Your task to perform on an android device: What is the news today? Image 0: 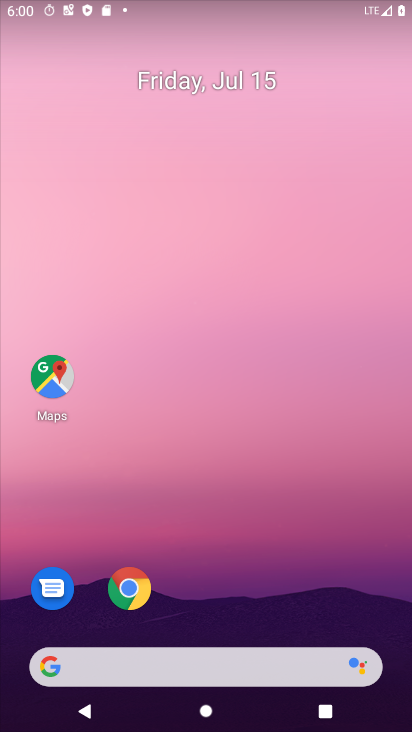
Step 0: click (217, 97)
Your task to perform on an android device: What is the news today? Image 1: 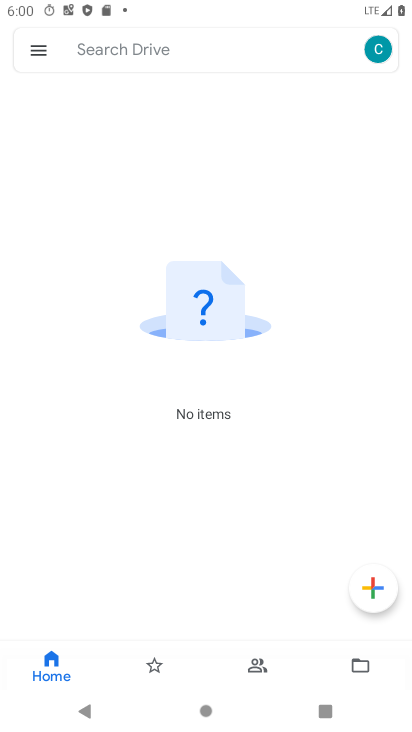
Step 1: press home button
Your task to perform on an android device: What is the news today? Image 2: 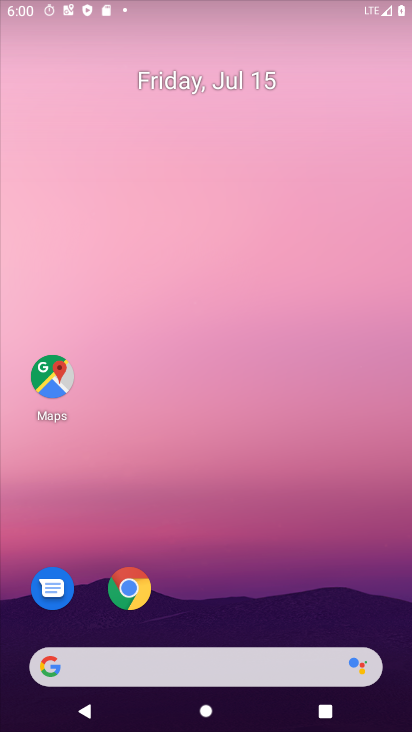
Step 2: drag from (278, 649) to (308, 55)
Your task to perform on an android device: What is the news today? Image 3: 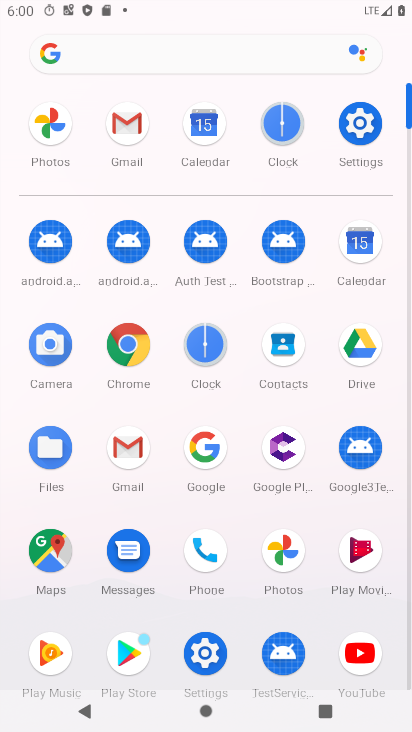
Step 3: click (363, 126)
Your task to perform on an android device: What is the news today? Image 4: 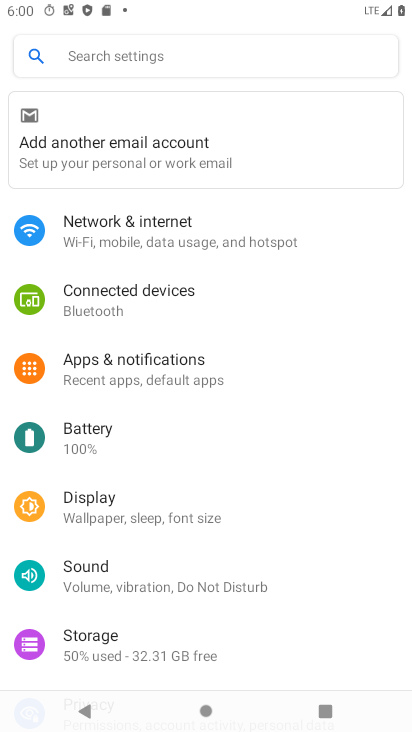
Step 4: press home button
Your task to perform on an android device: What is the news today? Image 5: 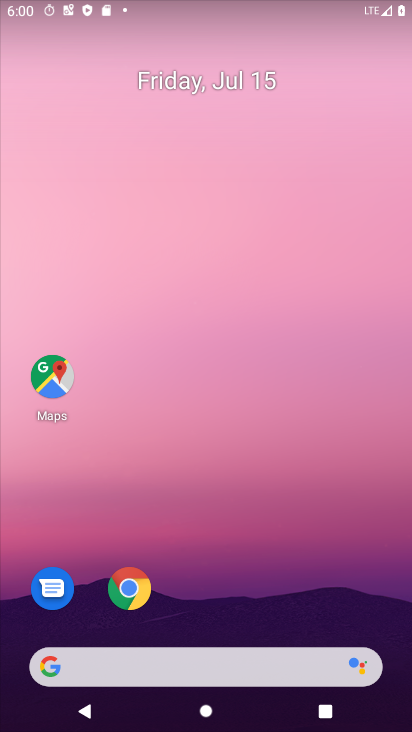
Step 5: drag from (240, 654) to (291, 44)
Your task to perform on an android device: What is the news today? Image 6: 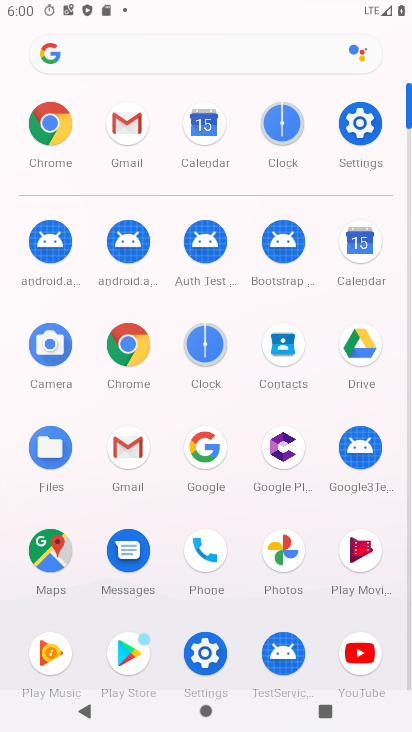
Step 6: click (143, 348)
Your task to perform on an android device: What is the news today? Image 7: 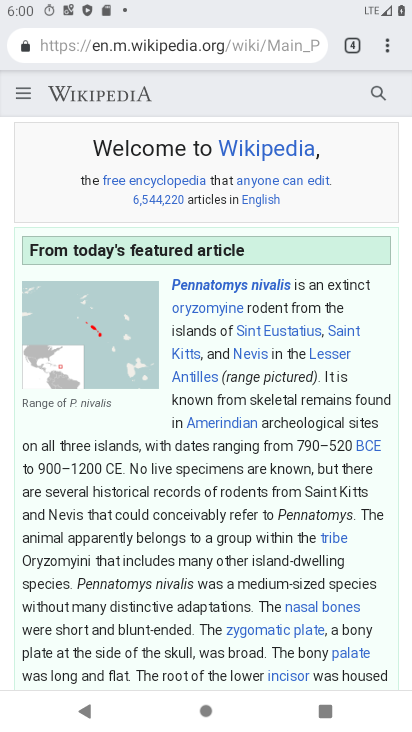
Step 7: click (253, 54)
Your task to perform on an android device: What is the news today? Image 8: 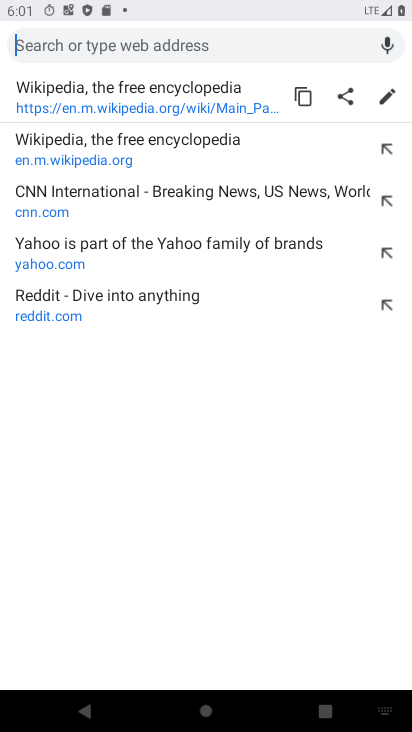
Step 8: type "news today"
Your task to perform on an android device: What is the news today? Image 9: 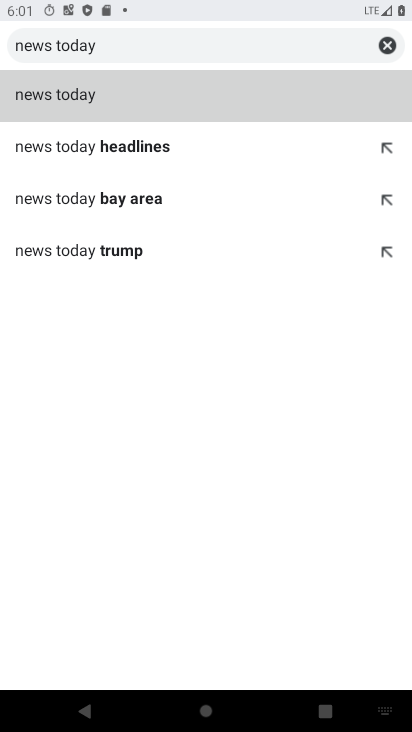
Step 9: click (55, 103)
Your task to perform on an android device: What is the news today? Image 10: 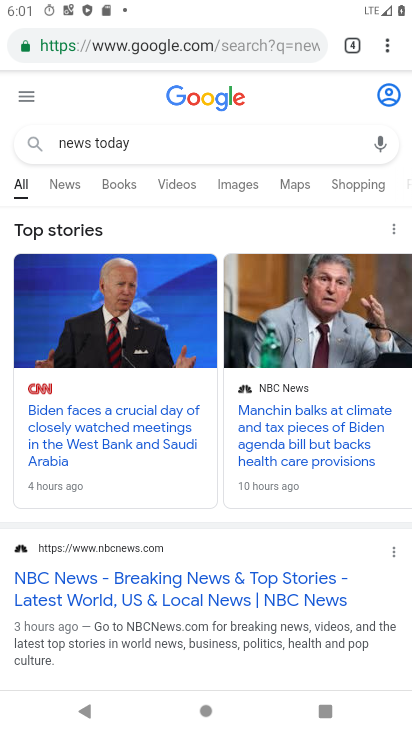
Step 10: task complete